Your task to perform on an android device: turn on airplane mode Image 0: 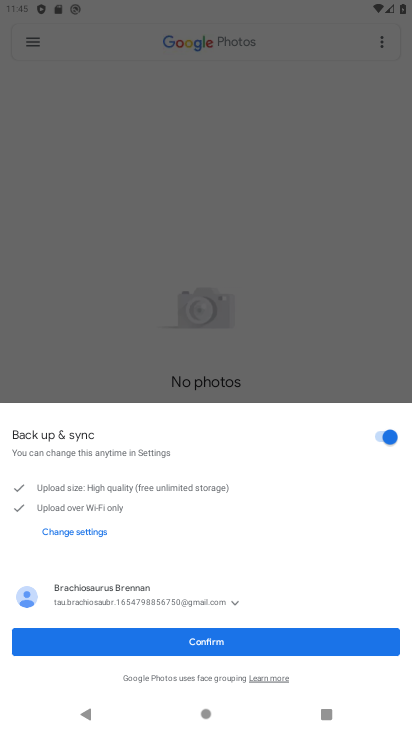
Step 0: press home button
Your task to perform on an android device: turn on airplane mode Image 1: 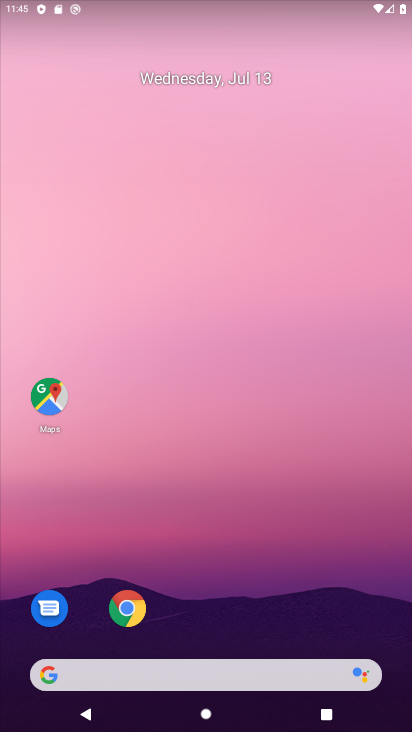
Step 1: drag from (23, 645) to (243, 103)
Your task to perform on an android device: turn on airplane mode Image 2: 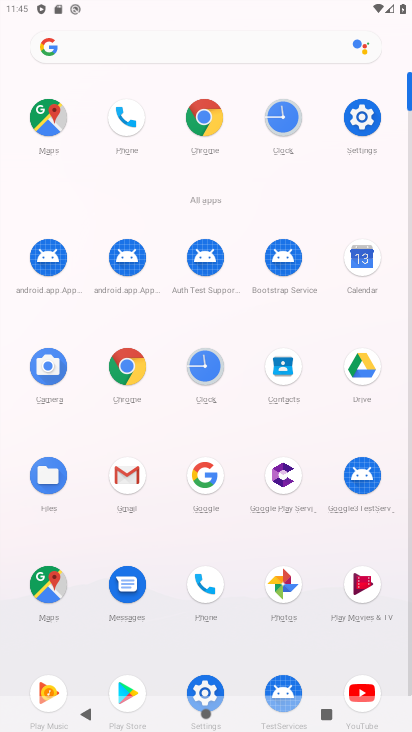
Step 2: click (371, 130)
Your task to perform on an android device: turn on airplane mode Image 3: 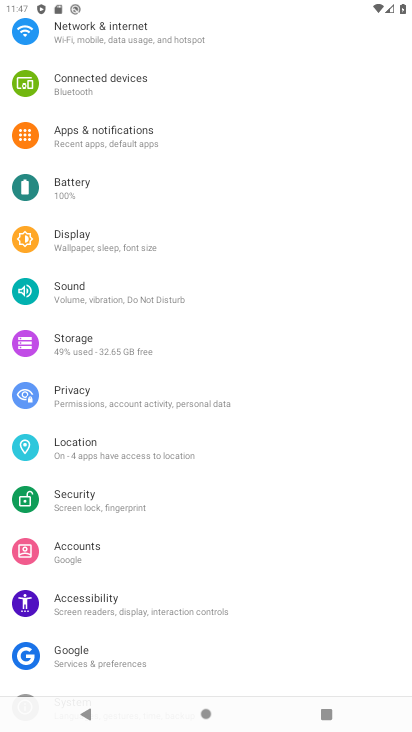
Step 3: drag from (364, 0) to (279, 590)
Your task to perform on an android device: turn on airplane mode Image 4: 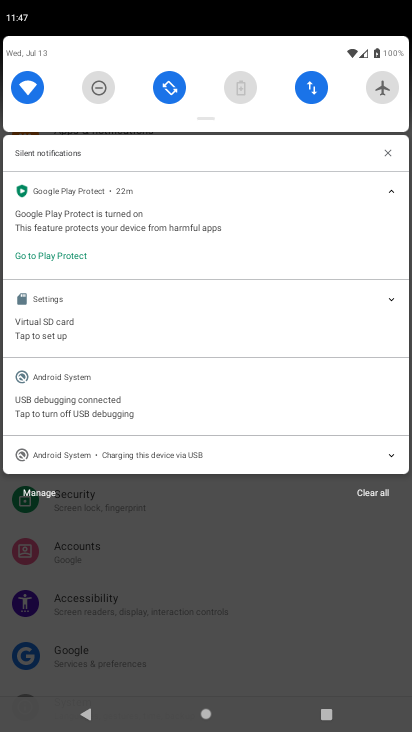
Step 4: click (383, 95)
Your task to perform on an android device: turn on airplane mode Image 5: 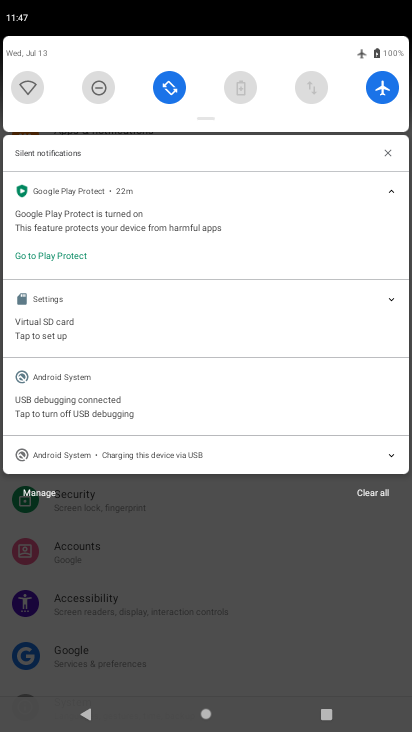
Step 5: task complete